Your task to perform on an android device: When is my next appointment? Image 0: 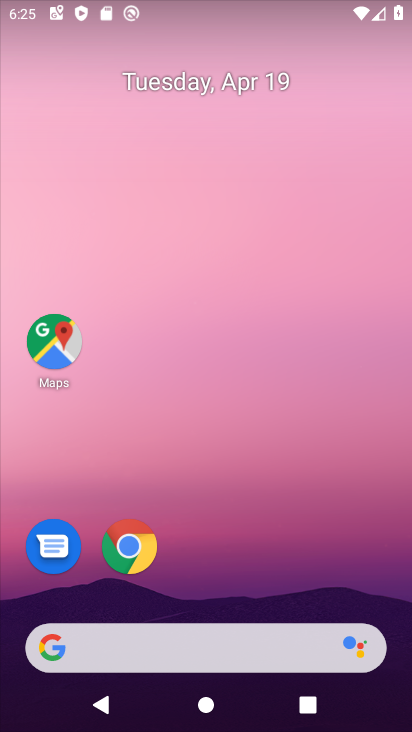
Step 0: drag from (270, 538) to (294, 34)
Your task to perform on an android device: When is my next appointment? Image 1: 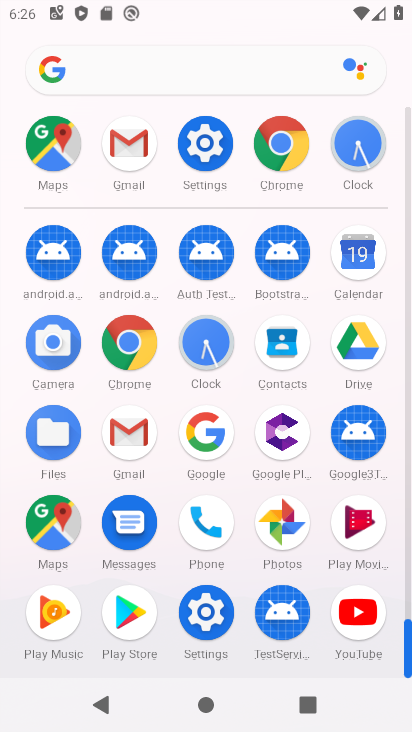
Step 1: click (371, 258)
Your task to perform on an android device: When is my next appointment? Image 2: 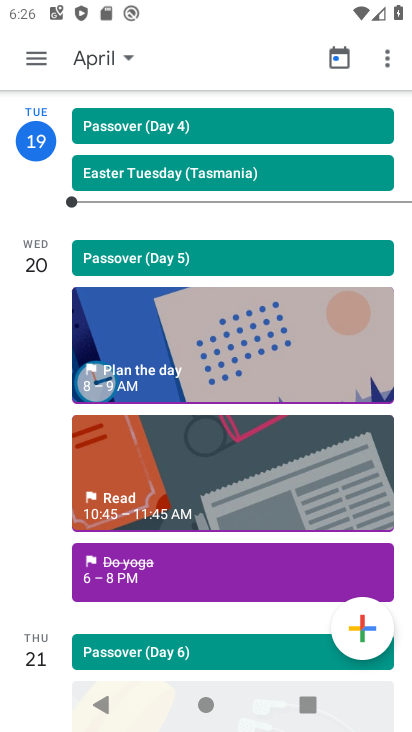
Step 2: task complete